Your task to perform on an android device: Open maps Image 0: 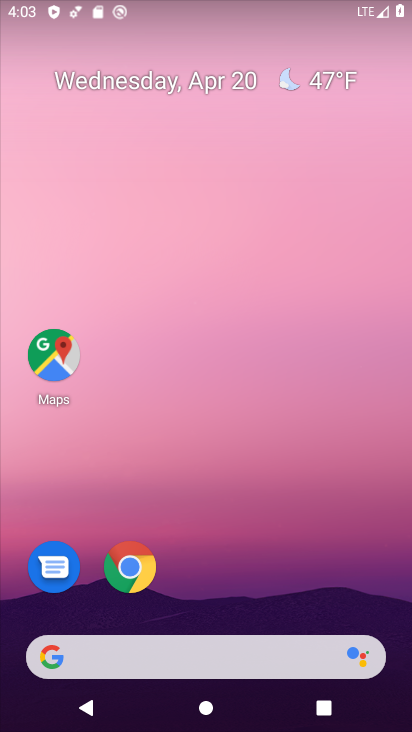
Step 0: drag from (240, 512) to (250, 45)
Your task to perform on an android device: Open maps Image 1: 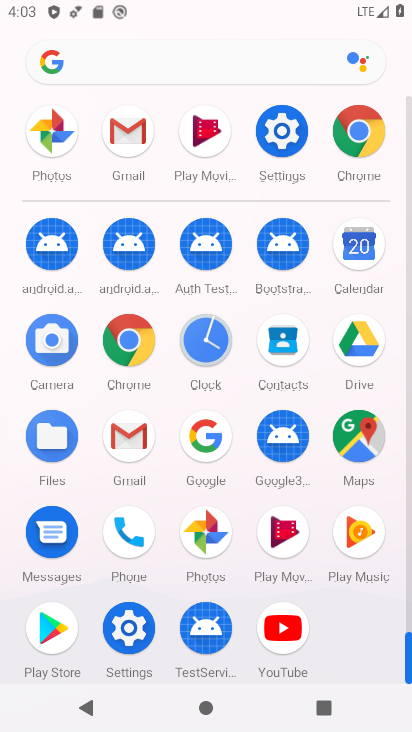
Step 1: click (356, 424)
Your task to perform on an android device: Open maps Image 2: 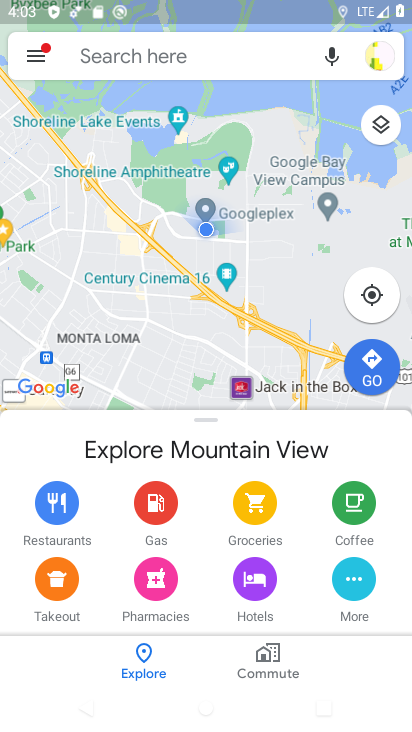
Step 2: task complete